Your task to perform on an android device: Open wifi settings Image 0: 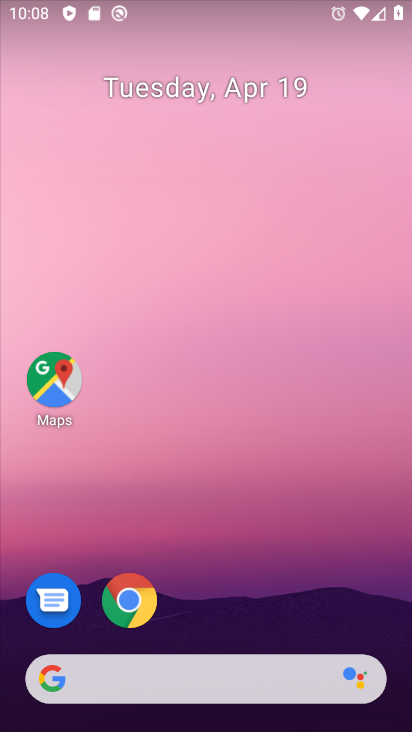
Step 0: drag from (223, 122) to (310, 13)
Your task to perform on an android device: Open wifi settings Image 1: 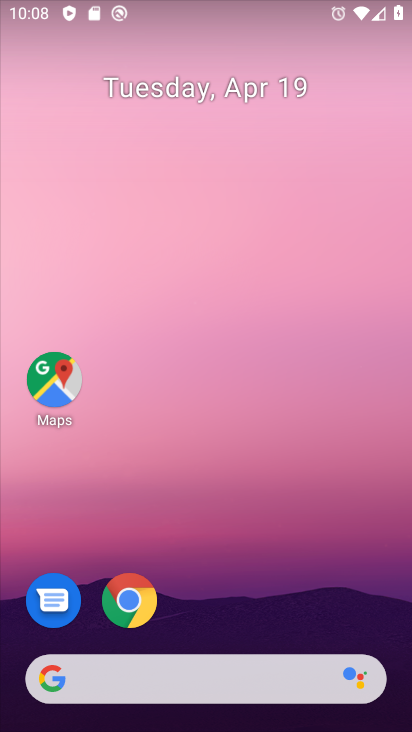
Step 1: drag from (217, 627) to (373, 17)
Your task to perform on an android device: Open wifi settings Image 2: 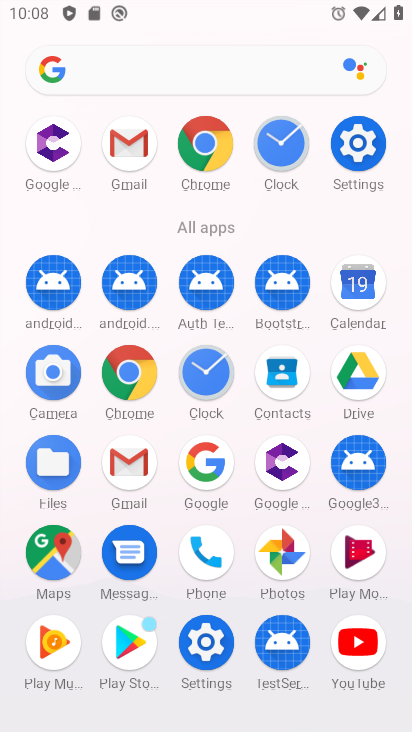
Step 2: click (365, 153)
Your task to perform on an android device: Open wifi settings Image 3: 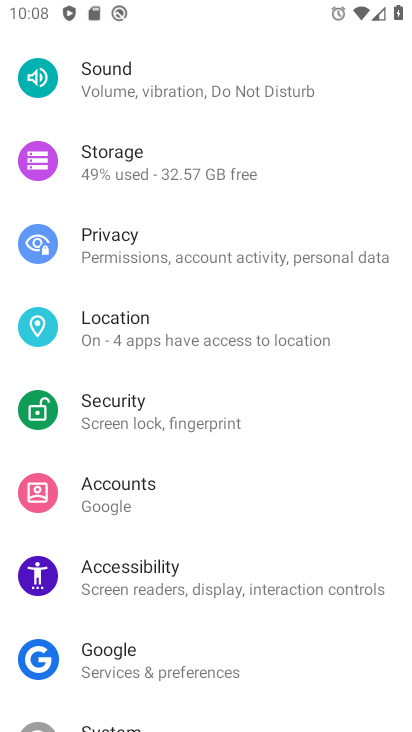
Step 3: drag from (123, 358) to (127, 569)
Your task to perform on an android device: Open wifi settings Image 4: 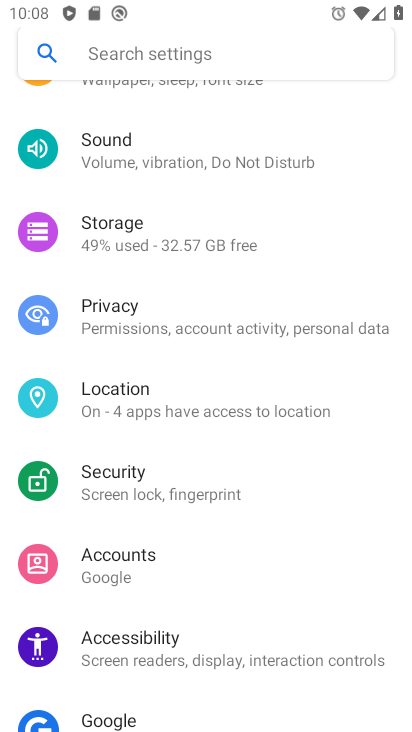
Step 4: drag from (142, 132) to (128, 565)
Your task to perform on an android device: Open wifi settings Image 5: 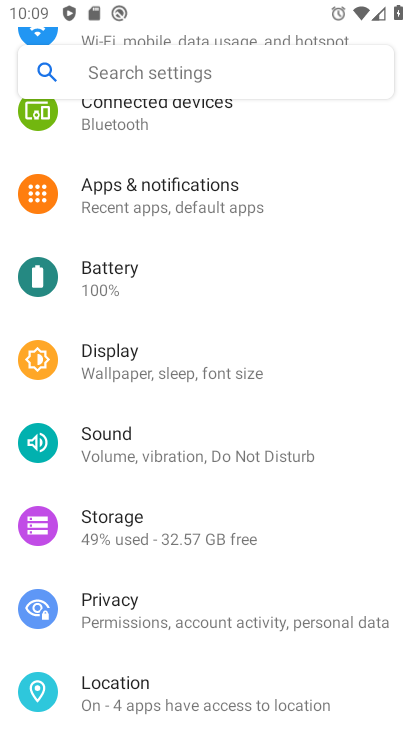
Step 5: drag from (251, 164) to (244, 472)
Your task to perform on an android device: Open wifi settings Image 6: 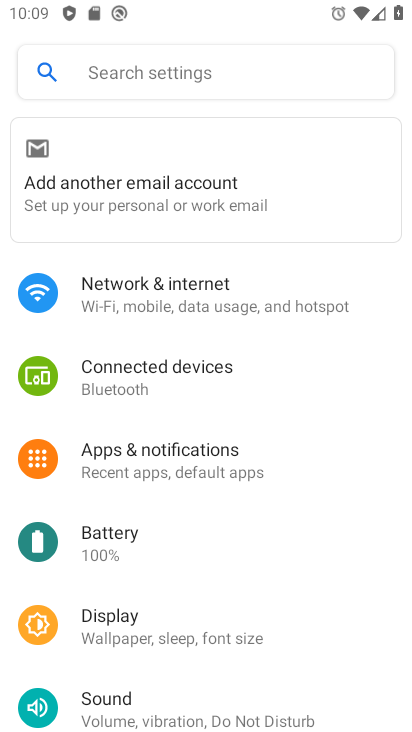
Step 6: click (187, 306)
Your task to perform on an android device: Open wifi settings Image 7: 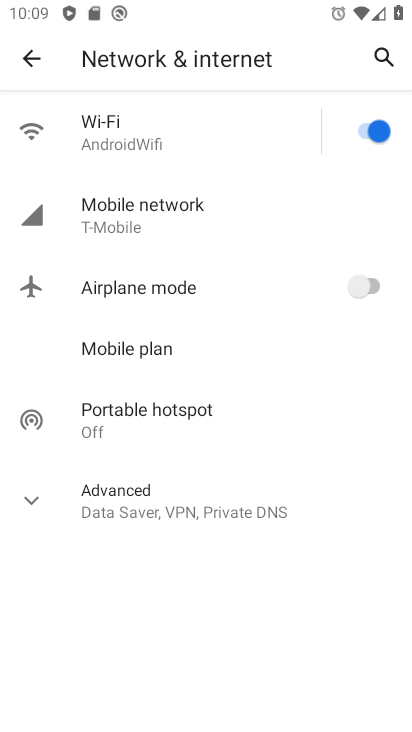
Step 7: click (135, 143)
Your task to perform on an android device: Open wifi settings Image 8: 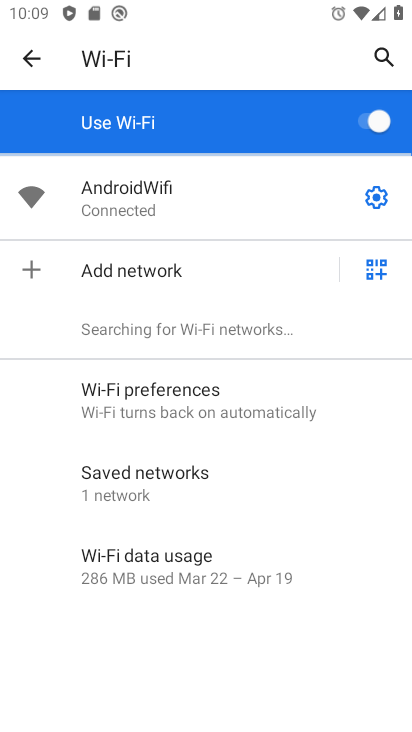
Step 8: task complete